Your task to perform on an android device: open a new tab in the chrome app Image 0: 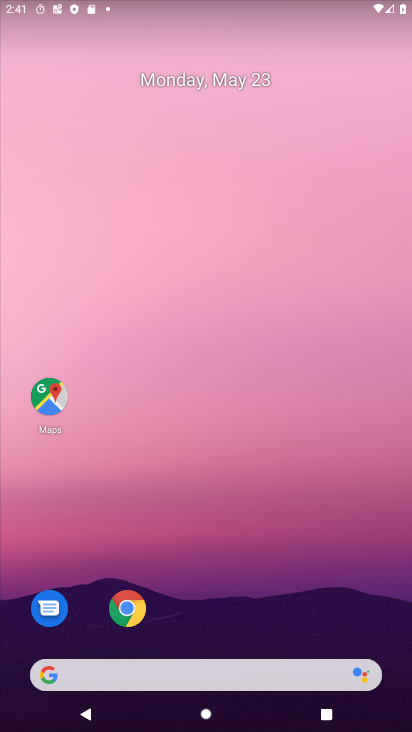
Step 0: drag from (249, 605) to (255, 8)
Your task to perform on an android device: open a new tab in the chrome app Image 1: 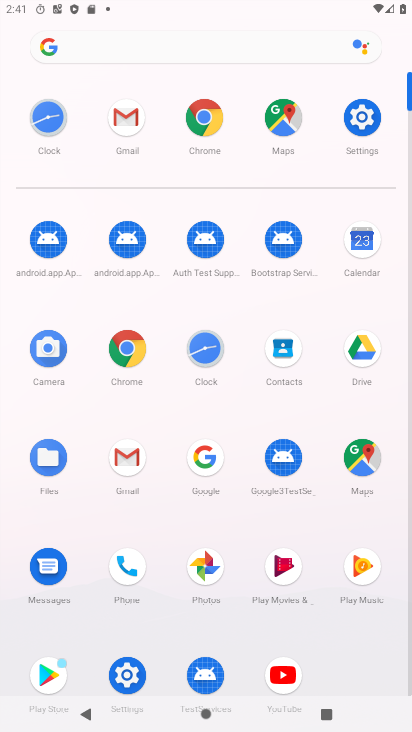
Step 1: click (128, 353)
Your task to perform on an android device: open a new tab in the chrome app Image 2: 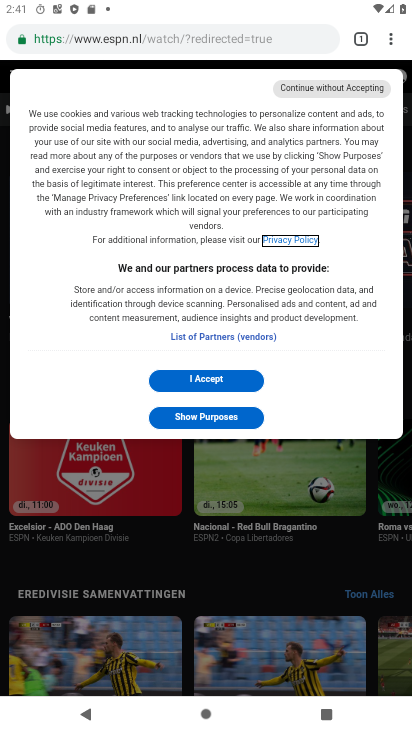
Step 2: click (390, 28)
Your task to perform on an android device: open a new tab in the chrome app Image 3: 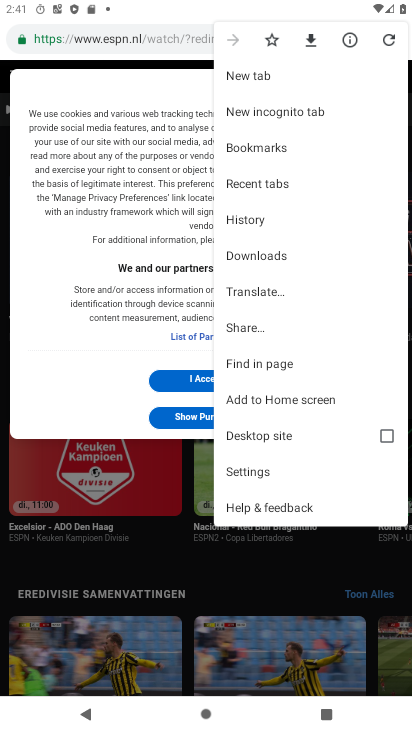
Step 3: click (250, 75)
Your task to perform on an android device: open a new tab in the chrome app Image 4: 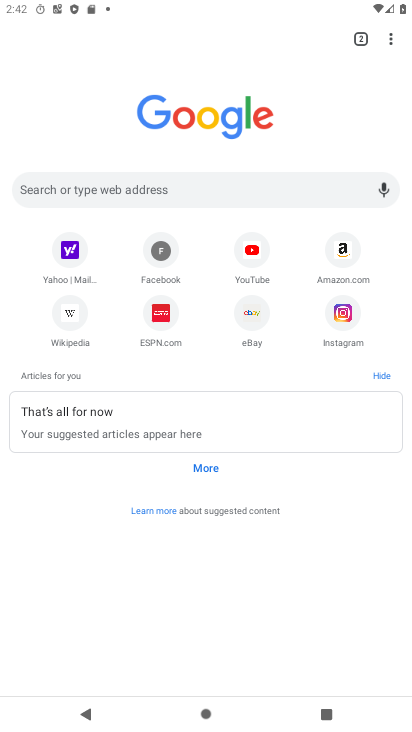
Step 4: task complete